Your task to perform on an android device: Clear the shopping cart on costco.com. Image 0: 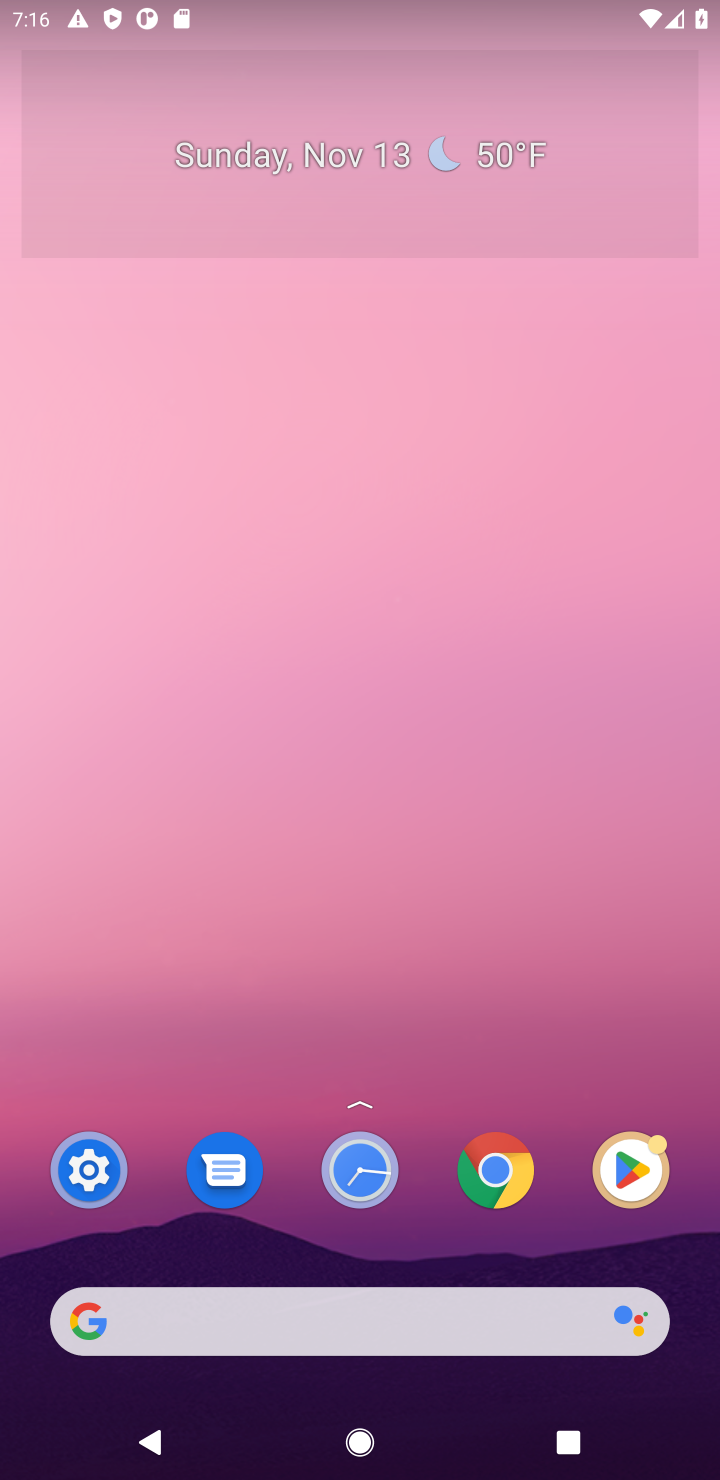
Step 0: press home button
Your task to perform on an android device: Clear the shopping cart on costco.com. Image 1: 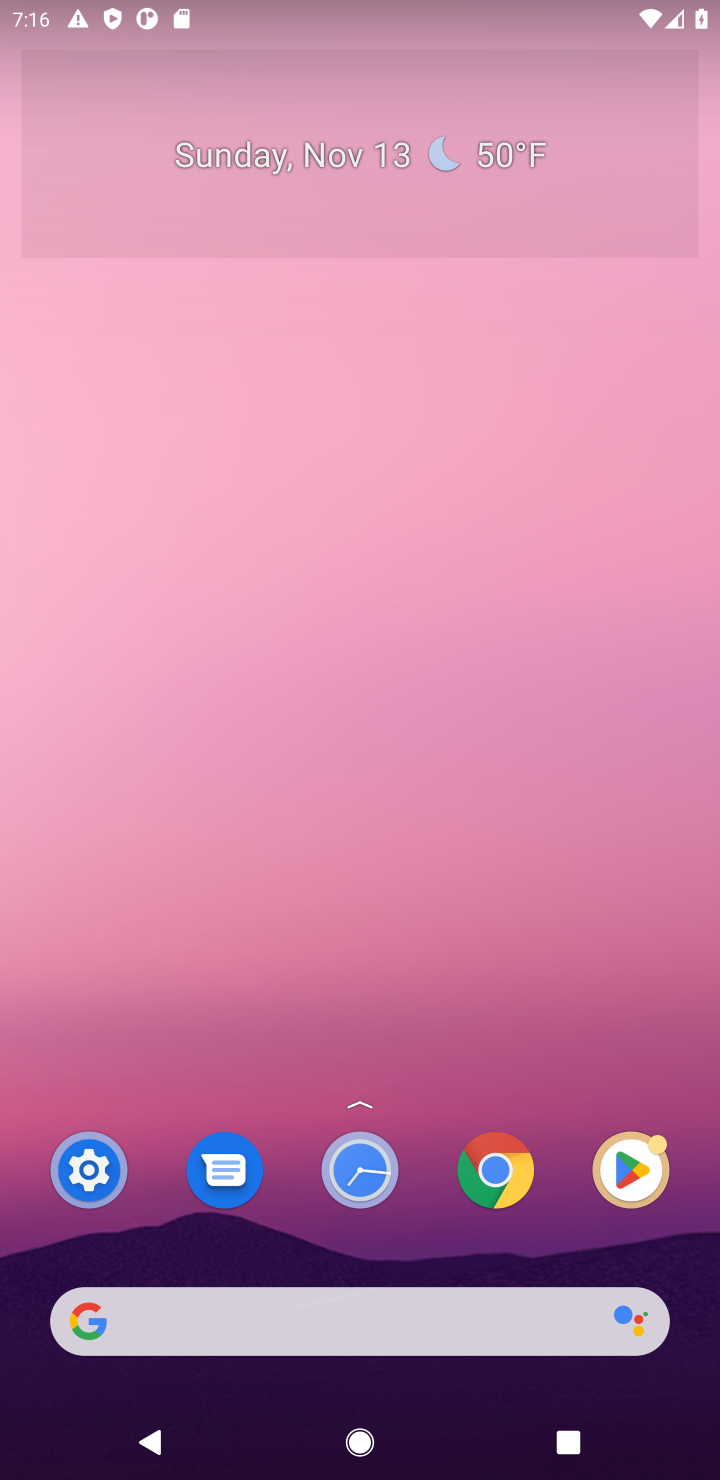
Step 1: click (456, 1343)
Your task to perform on an android device: Clear the shopping cart on costco.com. Image 2: 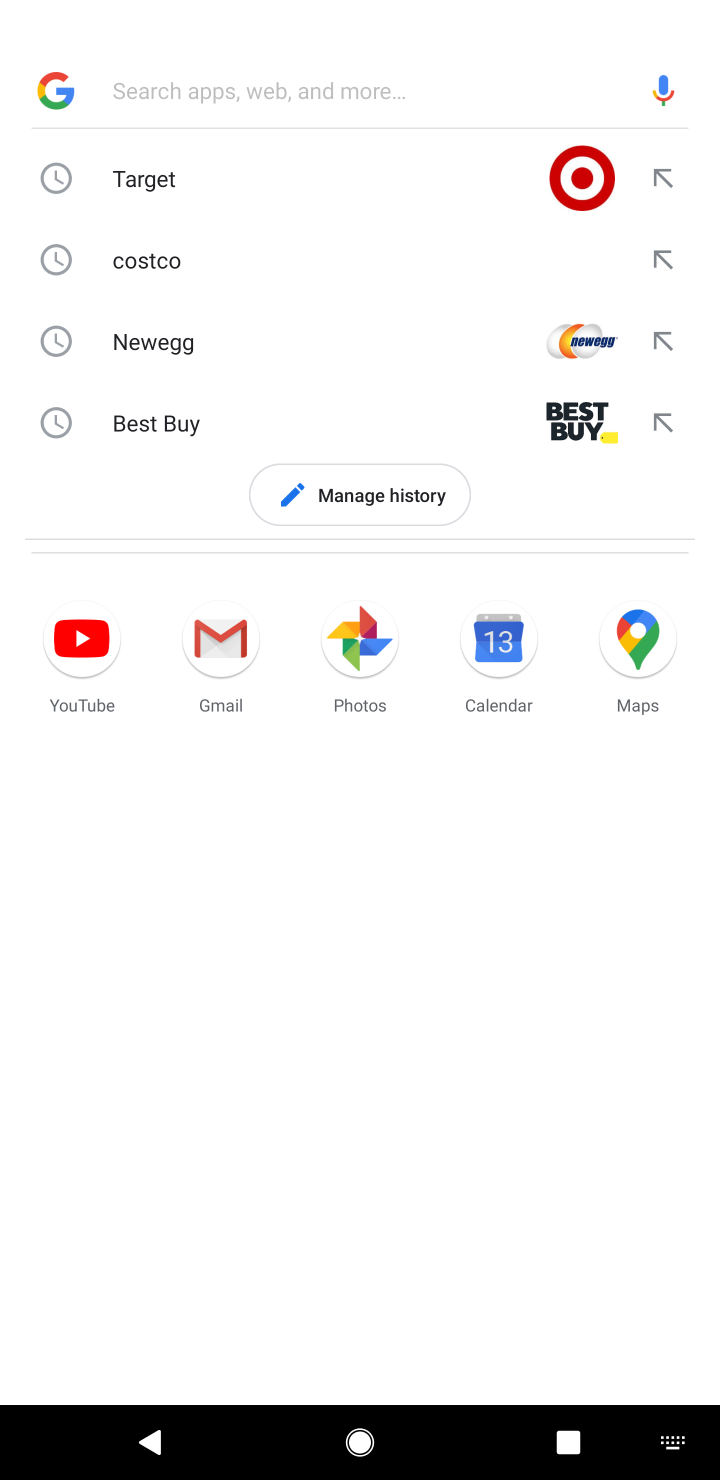
Step 2: type "costco.com"
Your task to perform on an android device: Clear the shopping cart on costco.com. Image 3: 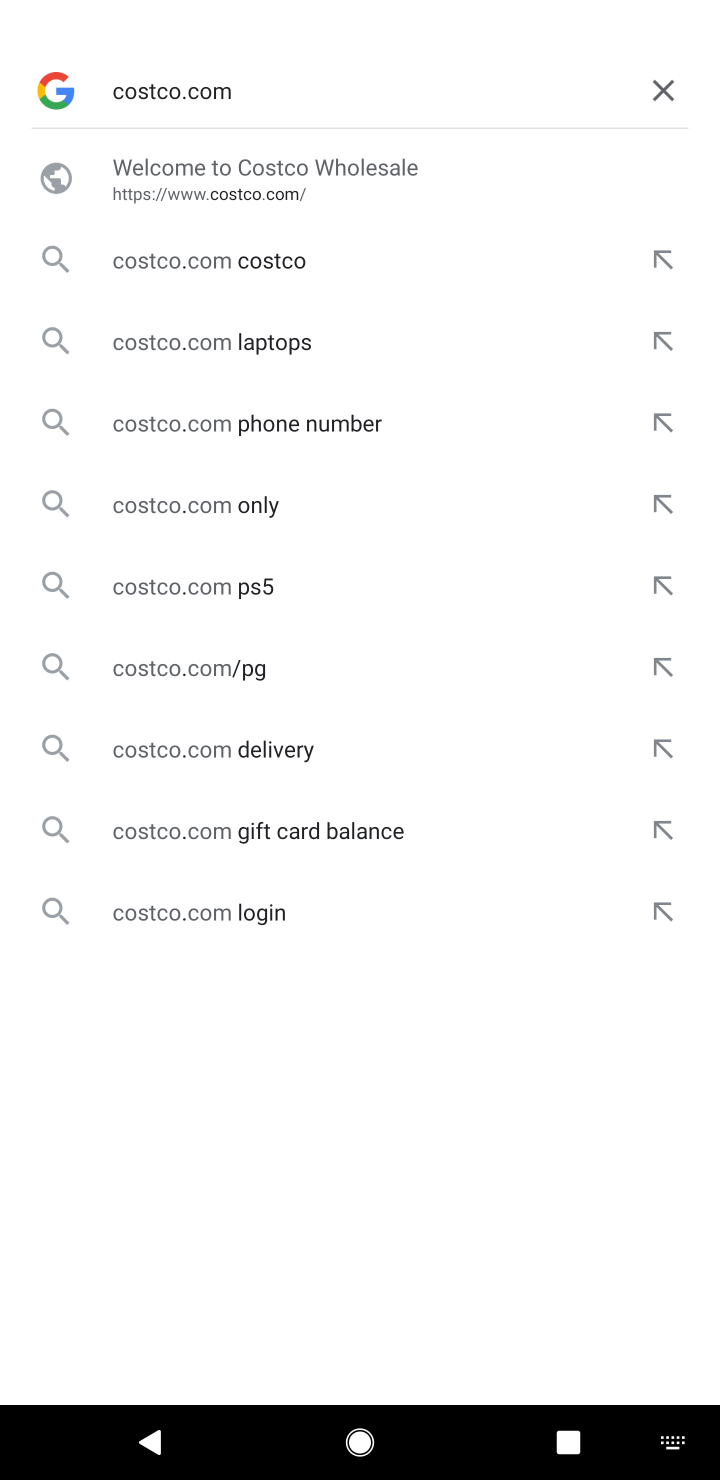
Step 3: click (364, 188)
Your task to perform on an android device: Clear the shopping cart on costco.com. Image 4: 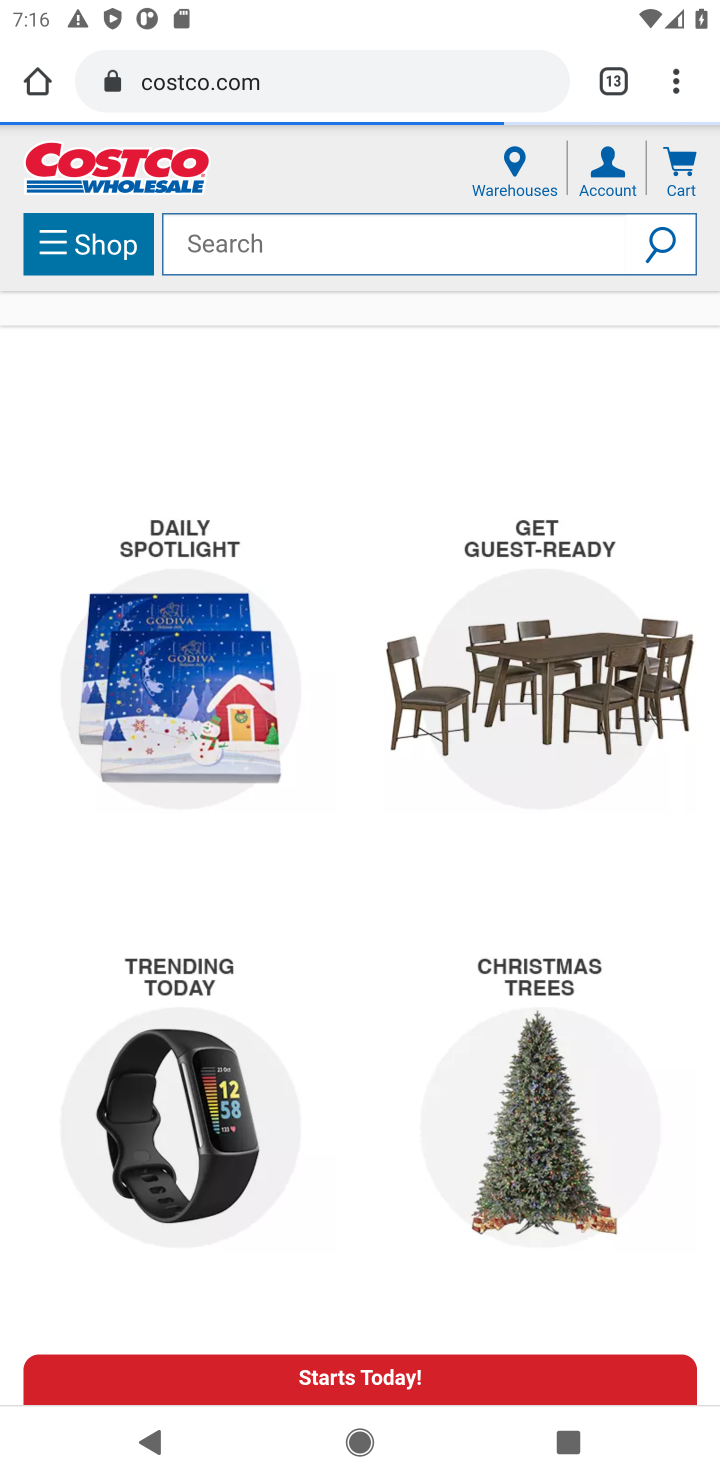
Step 4: task complete